Your task to perform on an android device: Go to Yahoo.com Image 0: 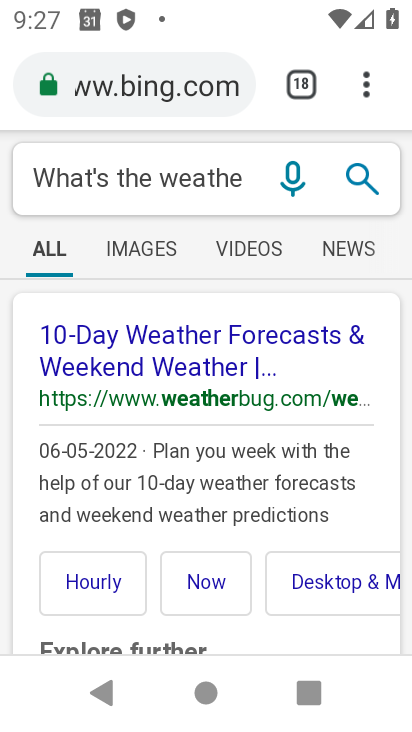
Step 0: click (342, 80)
Your task to perform on an android device: Go to Yahoo.com Image 1: 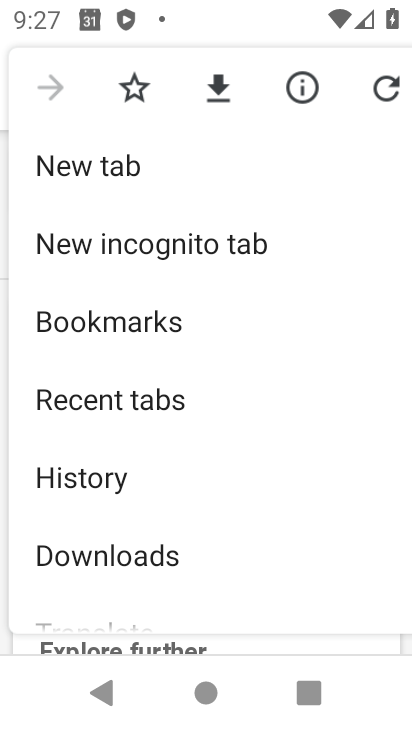
Step 1: click (96, 157)
Your task to perform on an android device: Go to Yahoo.com Image 2: 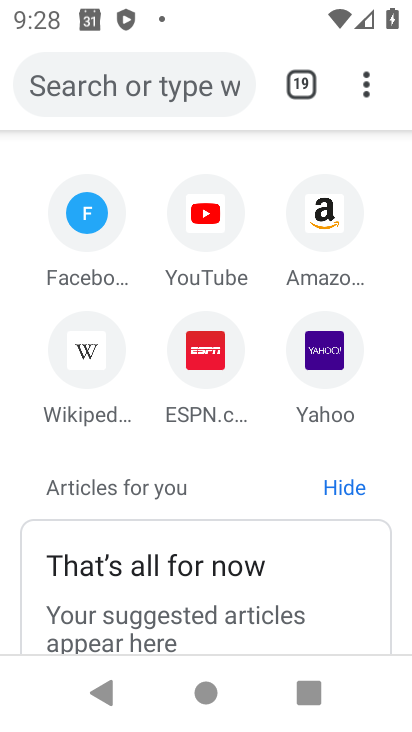
Step 2: click (328, 365)
Your task to perform on an android device: Go to Yahoo.com Image 3: 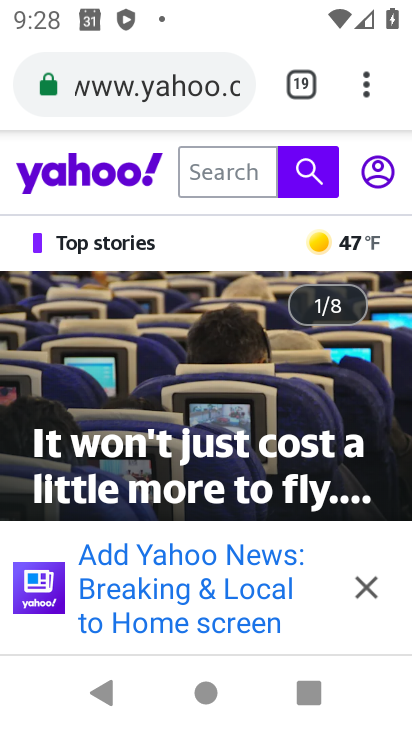
Step 3: task complete